Your task to perform on an android device: Open Youtube and go to "Your channel" Image 0: 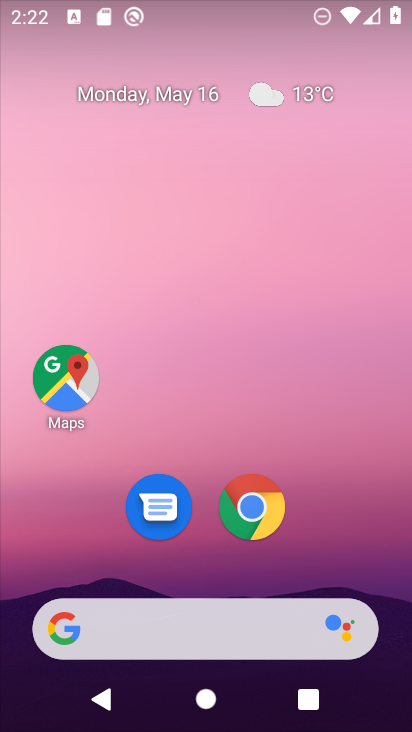
Step 0: drag from (338, 563) to (248, 236)
Your task to perform on an android device: Open Youtube and go to "Your channel" Image 1: 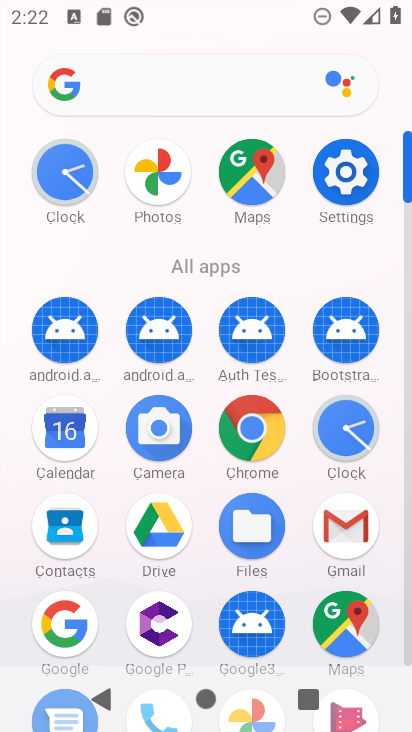
Step 1: drag from (287, 276) to (269, 30)
Your task to perform on an android device: Open Youtube and go to "Your channel" Image 2: 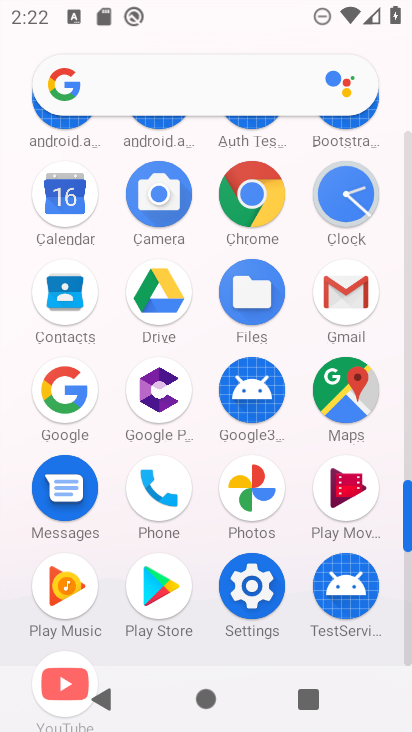
Step 2: drag from (105, 185) to (105, 0)
Your task to perform on an android device: Open Youtube and go to "Your channel" Image 3: 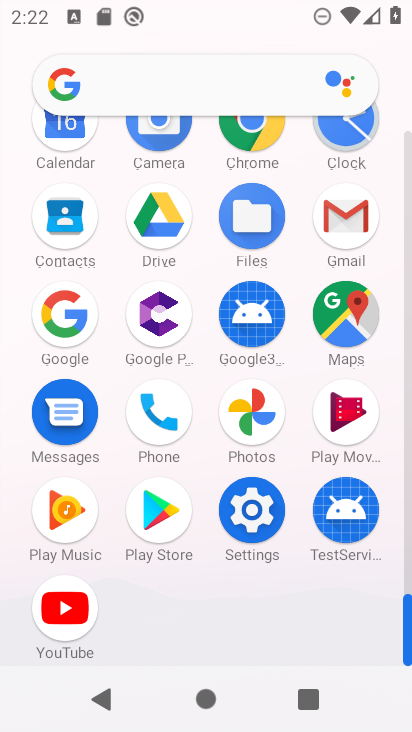
Step 3: click (82, 626)
Your task to perform on an android device: Open Youtube and go to "Your channel" Image 4: 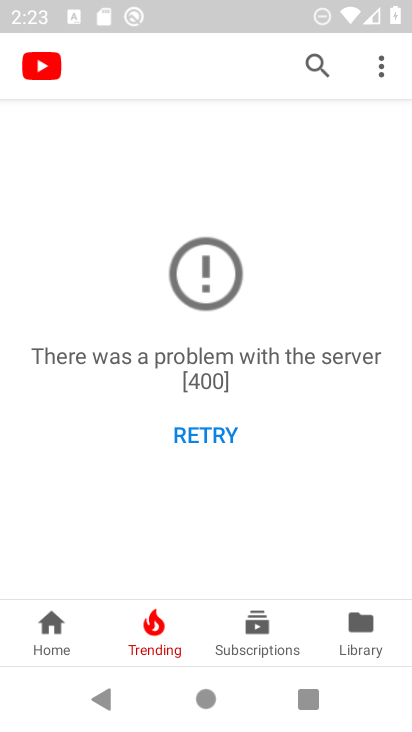
Step 4: click (376, 74)
Your task to perform on an android device: Open Youtube and go to "Your channel" Image 5: 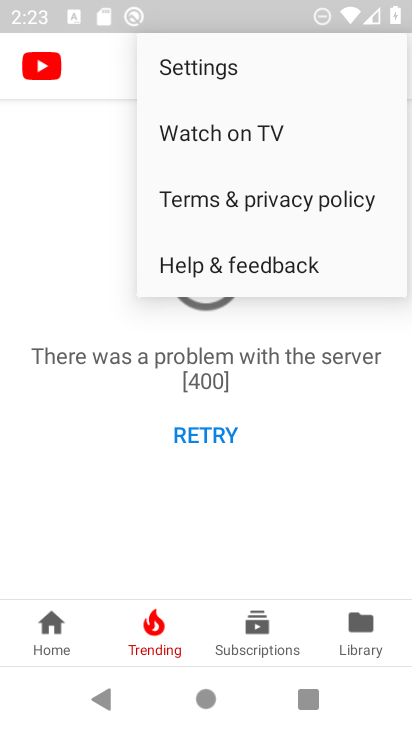
Step 5: click (172, 83)
Your task to perform on an android device: Open Youtube and go to "Your channel" Image 6: 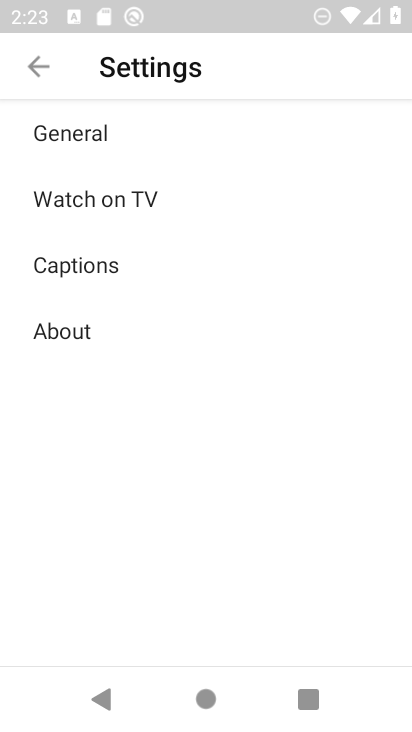
Step 6: click (112, 145)
Your task to perform on an android device: Open Youtube and go to "Your channel" Image 7: 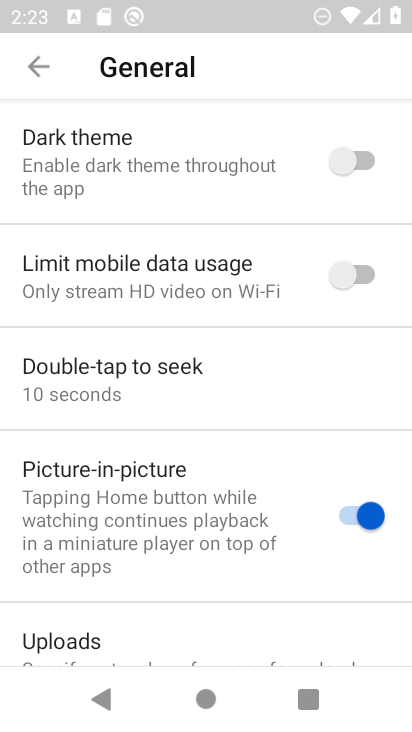
Step 7: drag from (159, 474) to (168, 135)
Your task to perform on an android device: Open Youtube and go to "Your channel" Image 8: 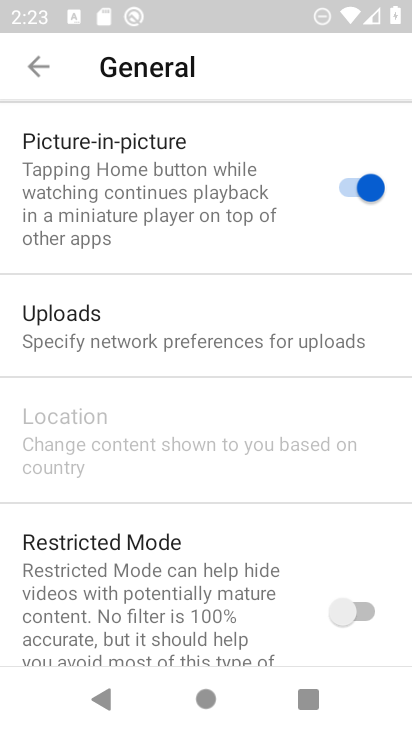
Step 8: drag from (185, 430) to (167, 228)
Your task to perform on an android device: Open Youtube and go to "Your channel" Image 9: 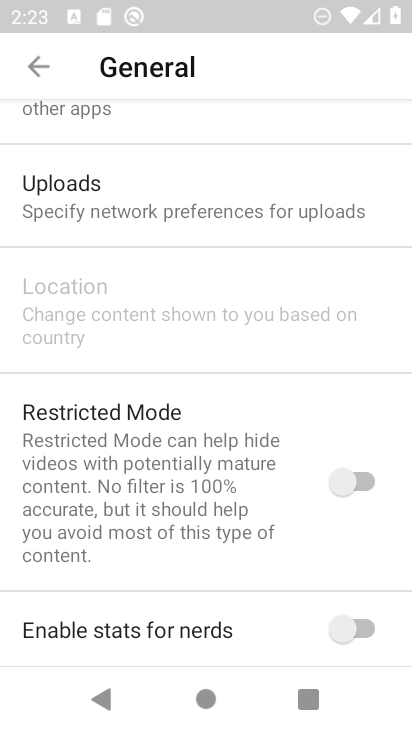
Step 9: drag from (173, 538) to (145, 680)
Your task to perform on an android device: Open Youtube and go to "Your channel" Image 10: 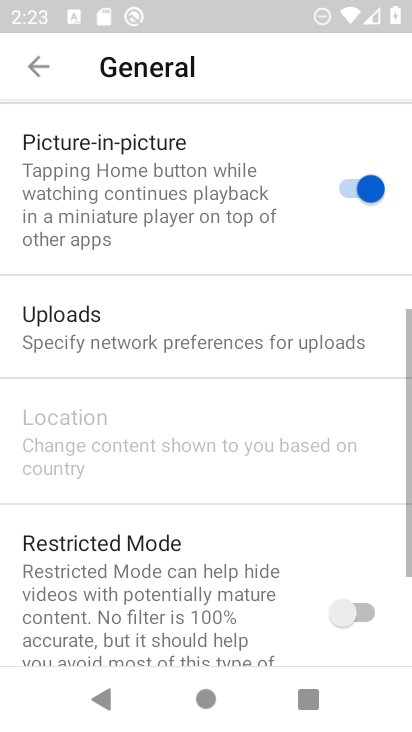
Step 10: click (121, 714)
Your task to perform on an android device: Open Youtube and go to "Your channel" Image 11: 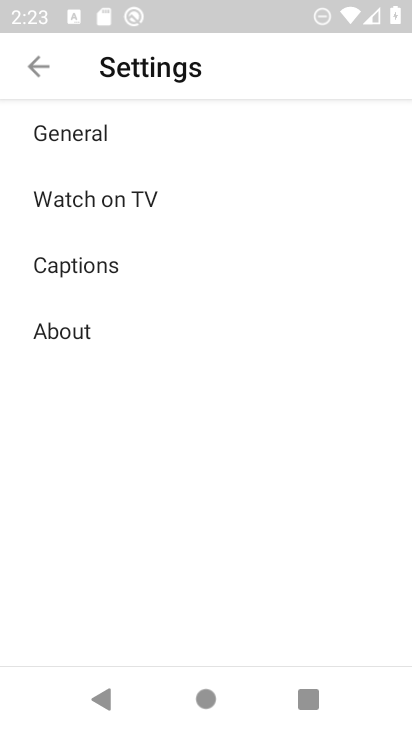
Step 11: click (91, 703)
Your task to perform on an android device: Open Youtube and go to "Your channel" Image 12: 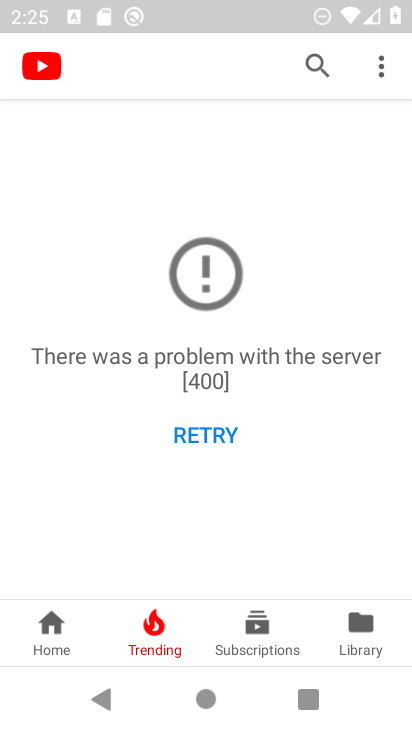
Step 12: task complete